Your task to perform on an android device: change the clock display to analog Image 0: 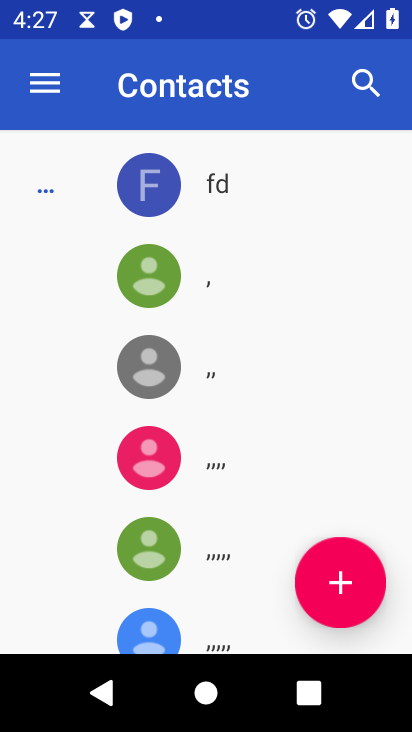
Step 0: press home button
Your task to perform on an android device: change the clock display to analog Image 1: 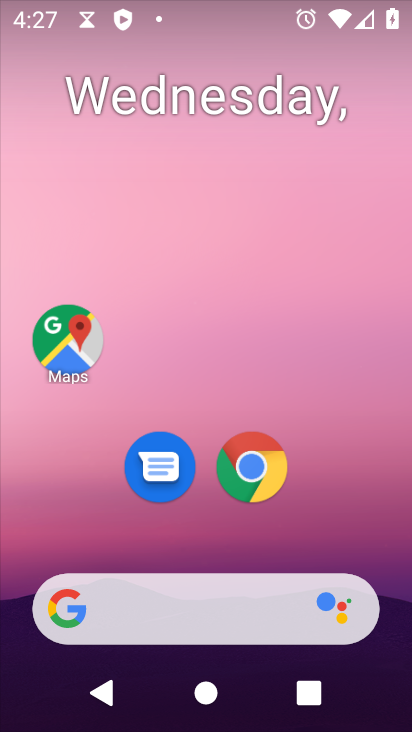
Step 1: drag from (359, 512) to (370, 90)
Your task to perform on an android device: change the clock display to analog Image 2: 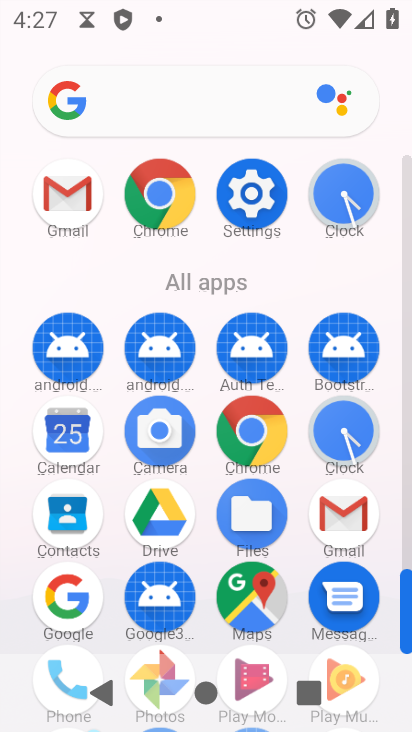
Step 2: click (324, 197)
Your task to perform on an android device: change the clock display to analog Image 3: 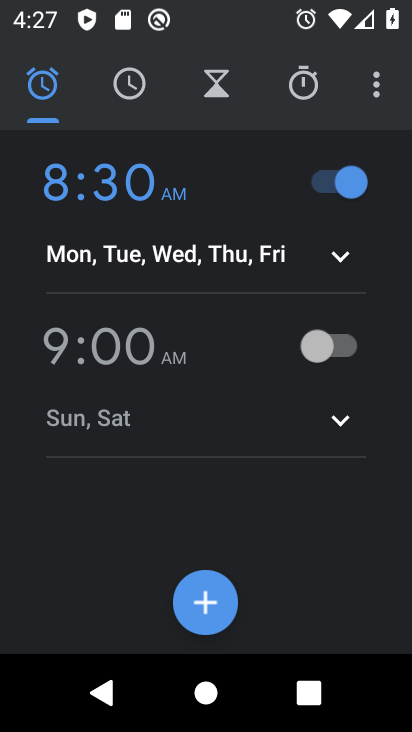
Step 3: click (373, 107)
Your task to perform on an android device: change the clock display to analog Image 4: 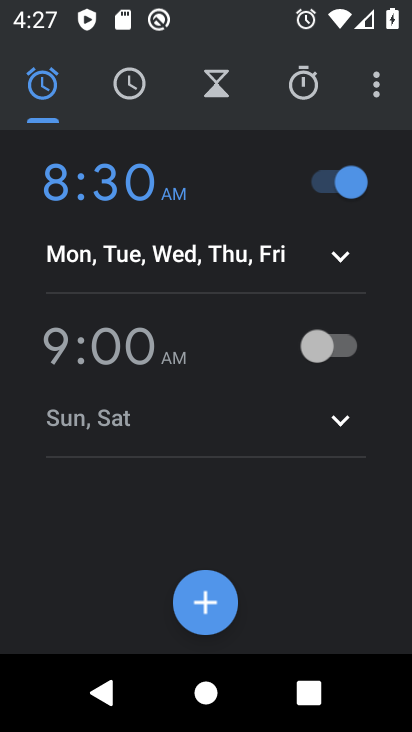
Step 4: click (353, 108)
Your task to perform on an android device: change the clock display to analog Image 5: 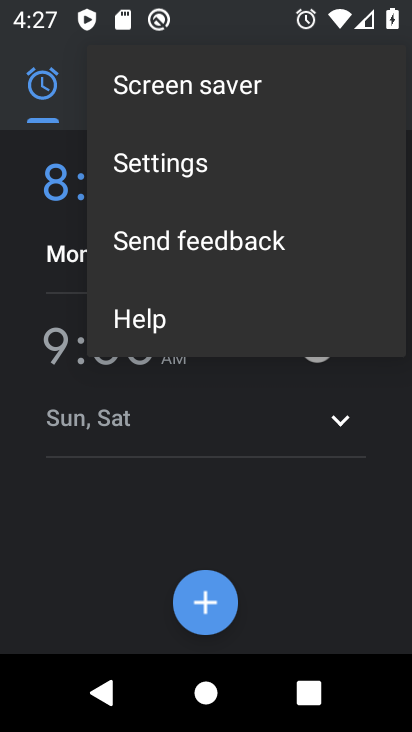
Step 5: click (186, 176)
Your task to perform on an android device: change the clock display to analog Image 6: 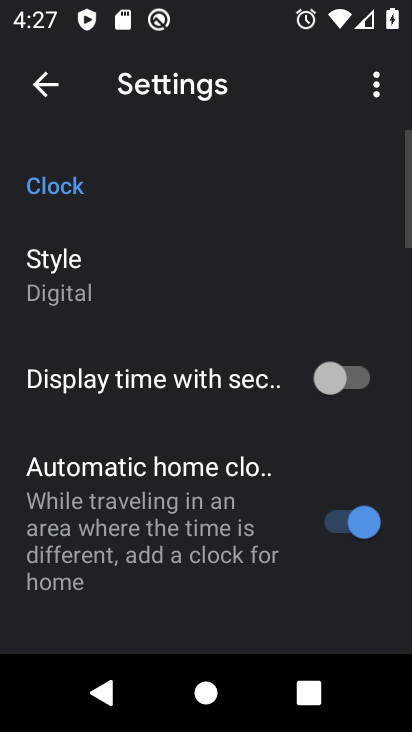
Step 6: click (44, 266)
Your task to perform on an android device: change the clock display to analog Image 7: 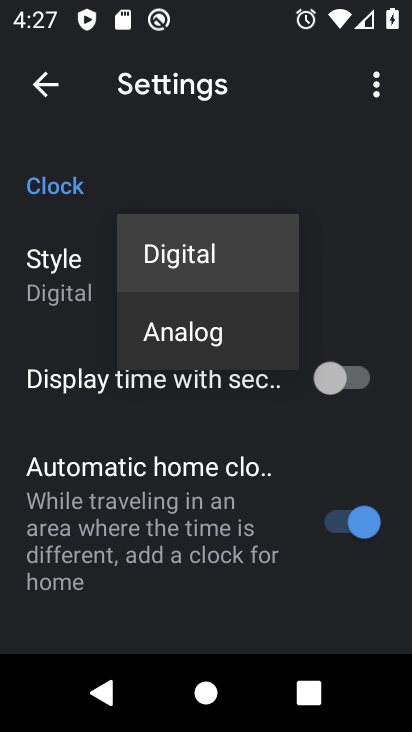
Step 7: click (188, 339)
Your task to perform on an android device: change the clock display to analog Image 8: 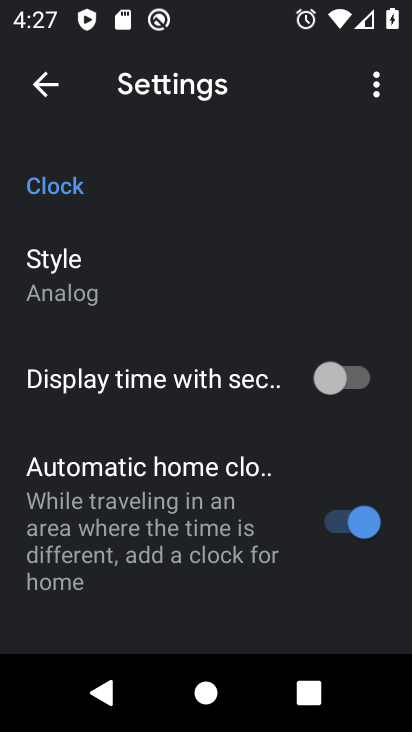
Step 8: task complete